Your task to perform on an android device: see sites visited before in the chrome app Image 0: 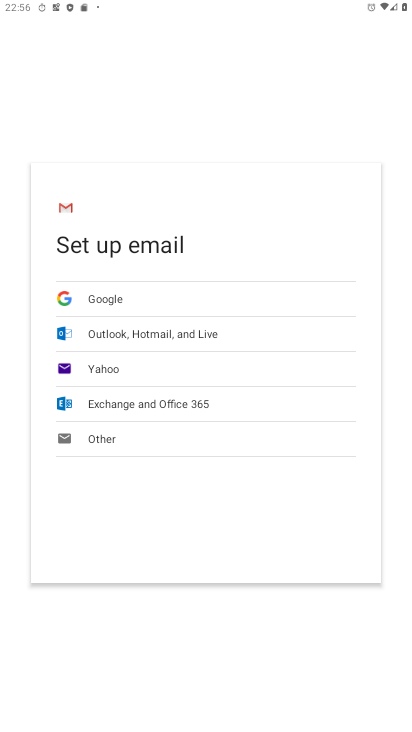
Step 0: press home button
Your task to perform on an android device: see sites visited before in the chrome app Image 1: 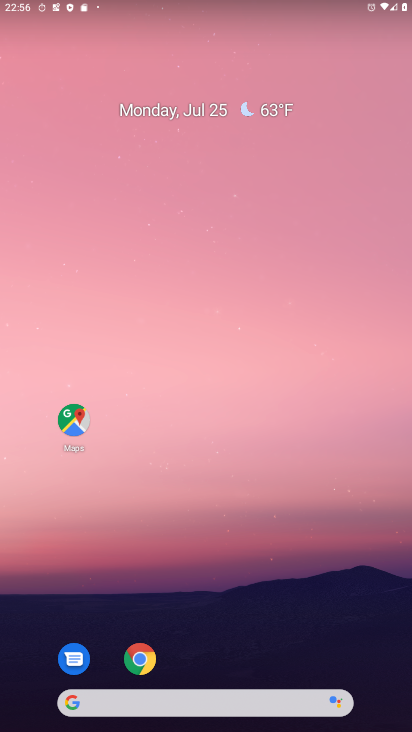
Step 1: click (142, 659)
Your task to perform on an android device: see sites visited before in the chrome app Image 2: 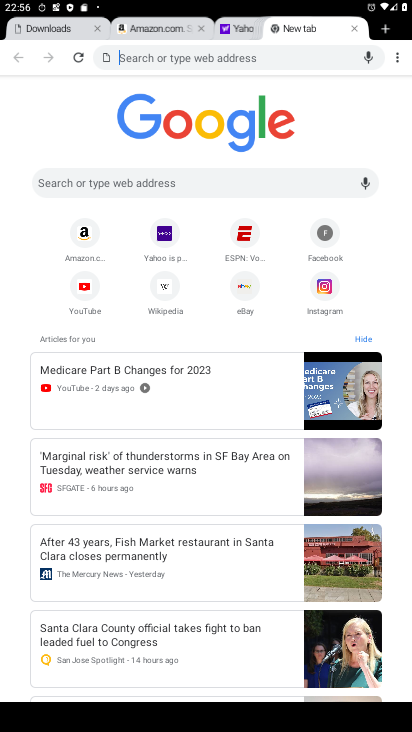
Step 2: click (395, 59)
Your task to perform on an android device: see sites visited before in the chrome app Image 3: 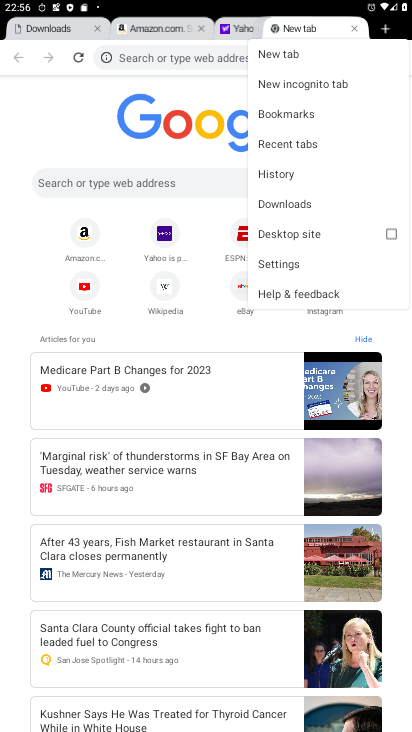
Step 3: click (291, 140)
Your task to perform on an android device: see sites visited before in the chrome app Image 4: 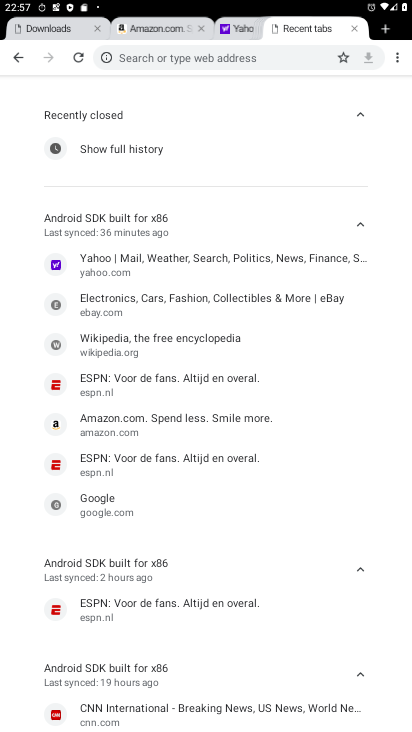
Step 4: task complete